Your task to perform on an android device: turn on javascript in the chrome app Image 0: 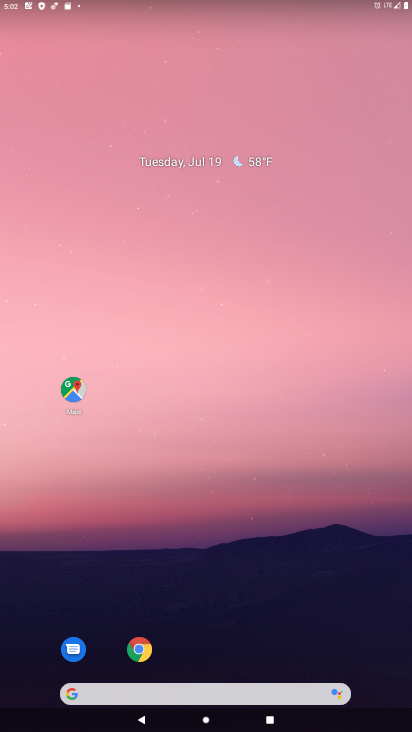
Step 0: click (166, 642)
Your task to perform on an android device: turn on javascript in the chrome app Image 1: 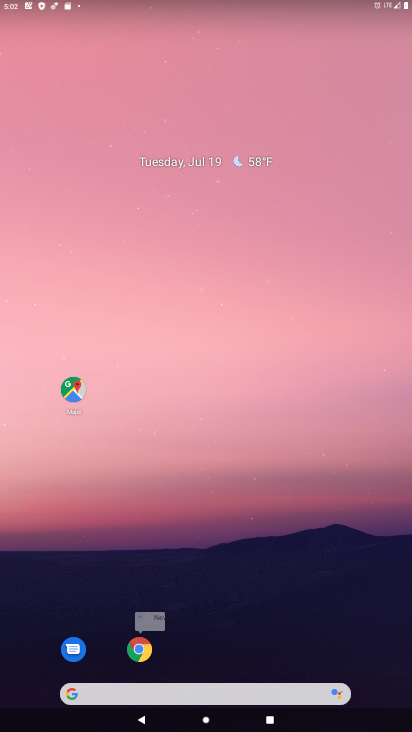
Step 1: click (138, 648)
Your task to perform on an android device: turn on javascript in the chrome app Image 2: 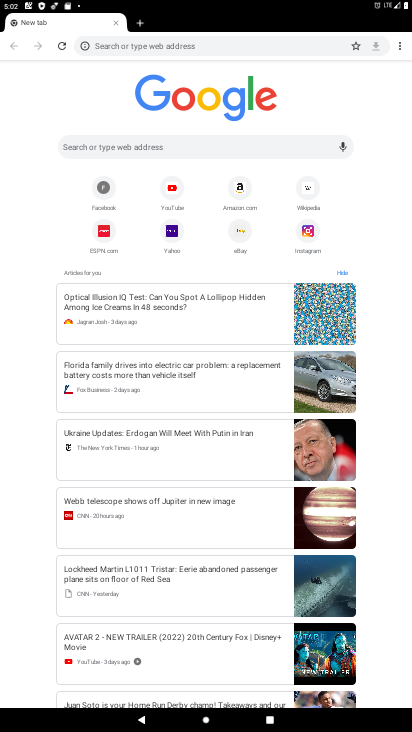
Step 2: click (399, 46)
Your task to perform on an android device: turn on javascript in the chrome app Image 3: 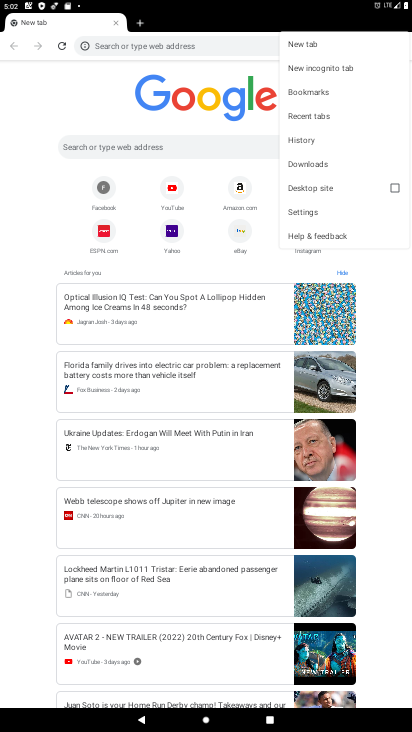
Step 3: click (322, 208)
Your task to perform on an android device: turn on javascript in the chrome app Image 4: 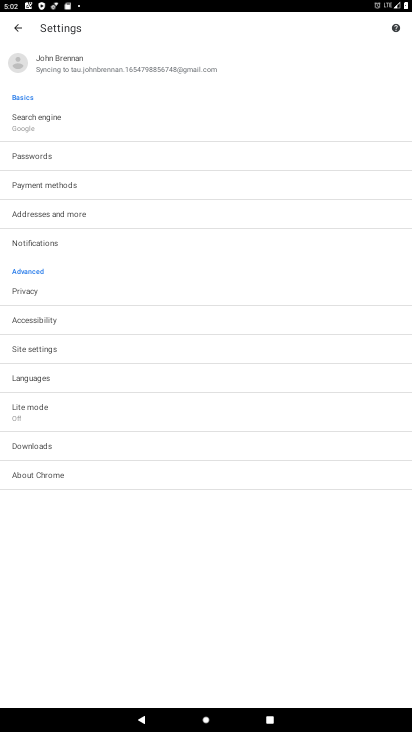
Step 4: click (37, 348)
Your task to perform on an android device: turn on javascript in the chrome app Image 5: 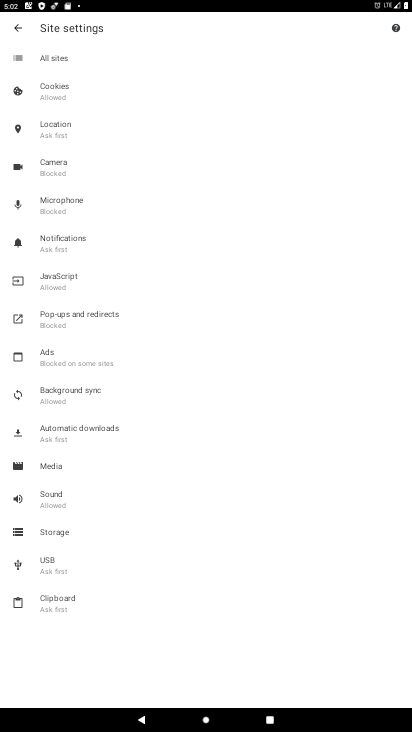
Step 5: click (75, 280)
Your task to perform on an android device: turn on javascript in the chrome app Image 6: 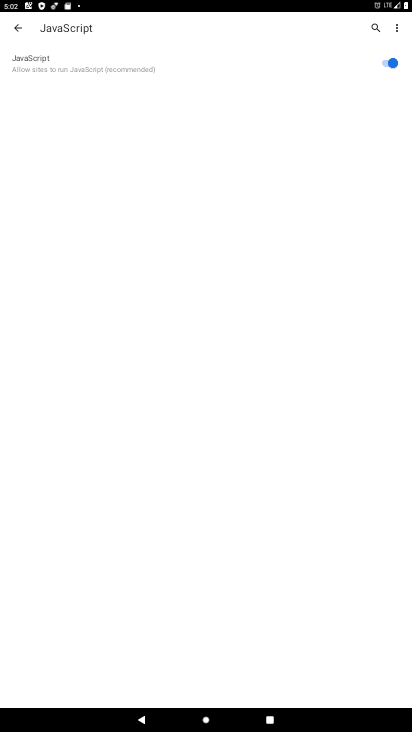
Step 6: task complete